Your task to perform on an android device: choose inbox layout in the gmail app Image 0: 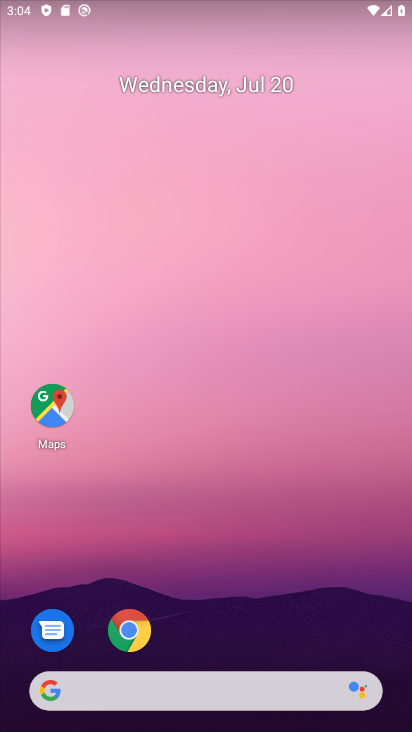
Step 0: drag from (262, 582) to (224, 69)
Your task to perform on an android device: choose inbox layout in the gmail app Image 1: 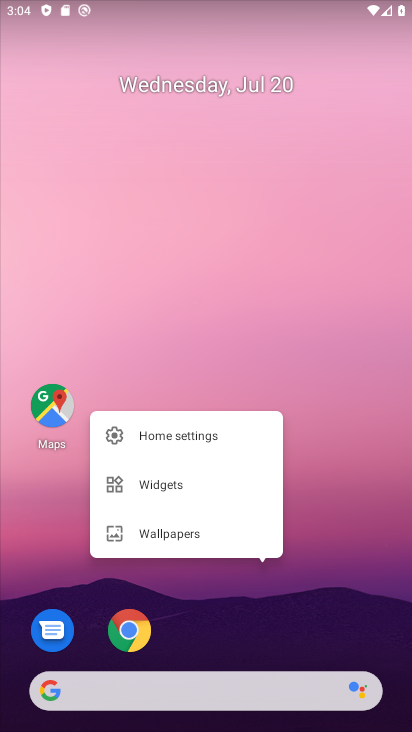
Step 1: click (357, 318)
Your task to perform on an android device: choose inbox layout in the gmail app Image 2: 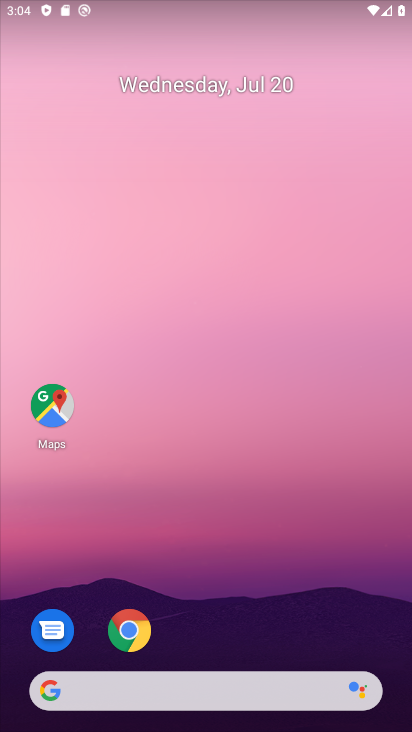
Step 2: drag from (340, 599) to (304, 24)
Your task to perform on an android device: choose inbox layout in the gmail app Image 3: 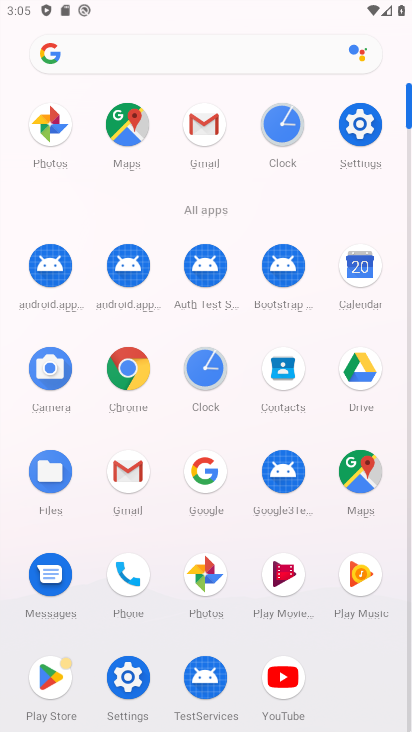
Step 3: click (126, 465)
Your task to perform on an android device: choose inbox layout in the gmail app Image 4: 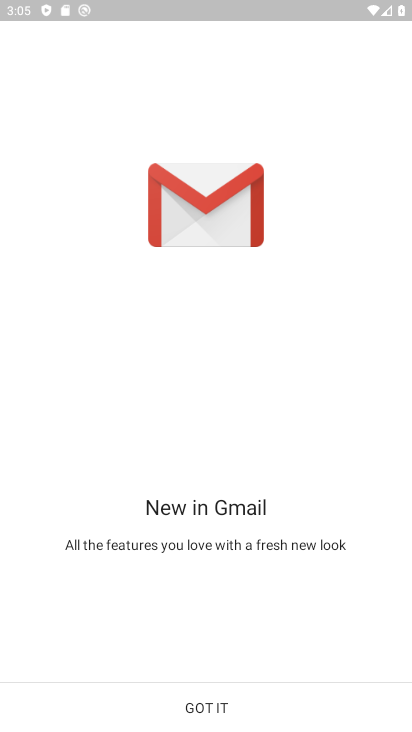
Step 4: click (241, 710)
Your task to perform on an android device: choose inbox layout in the gmail app Image 5: 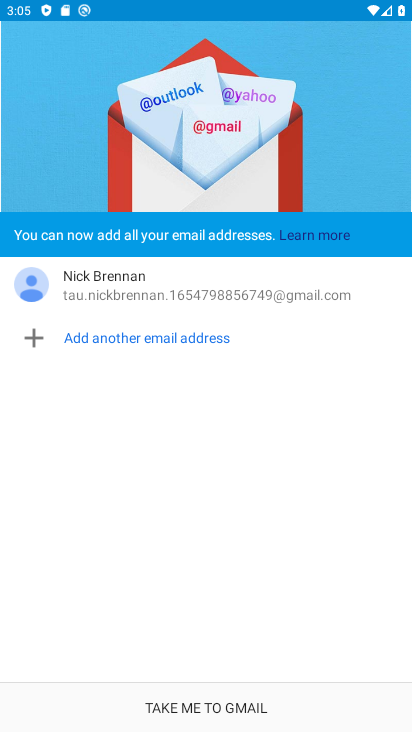
Step 5: click (241, 710)
Your task to perform on an android device: choose inbox layout in the gmail app Image 6: 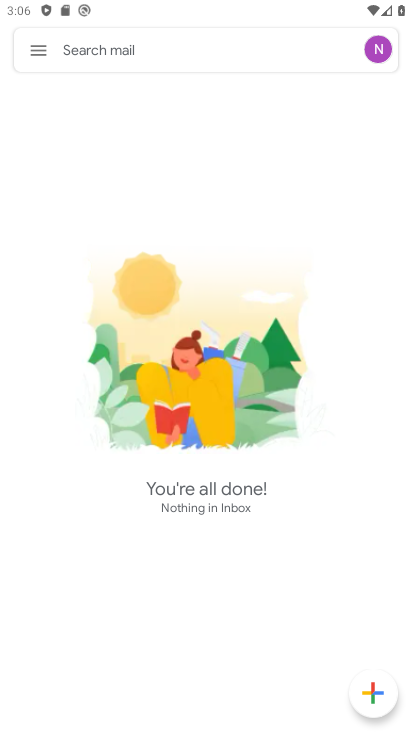
Step 6: click (27, 47)
Your task to perform on an android device: choose inbox layout in the gmail app Image 7: 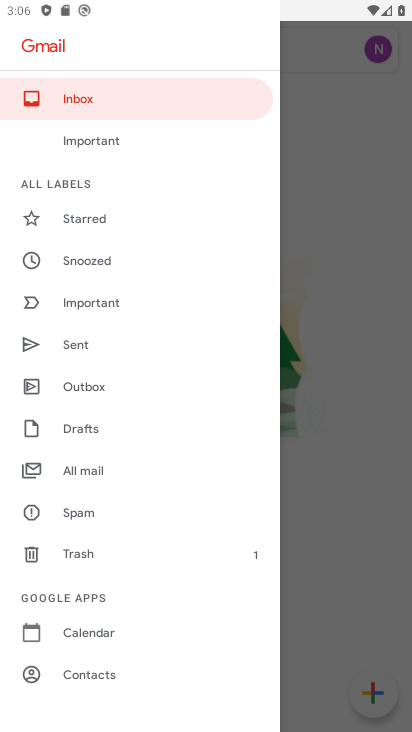
Step 7: drag from (123, 643) to (117, 410)
Your task to perform on an android device: choose inbox layout in the gmail app Image 8: 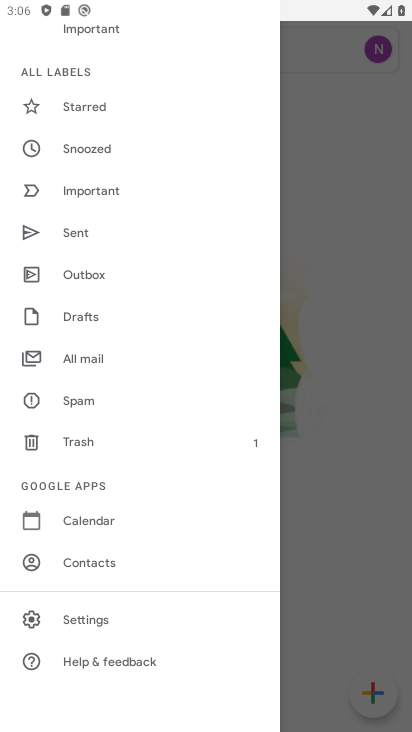
Step 8: click (51, 623)
Your task to perform on an android device: choose inbox layout in the gmail app Image 9: 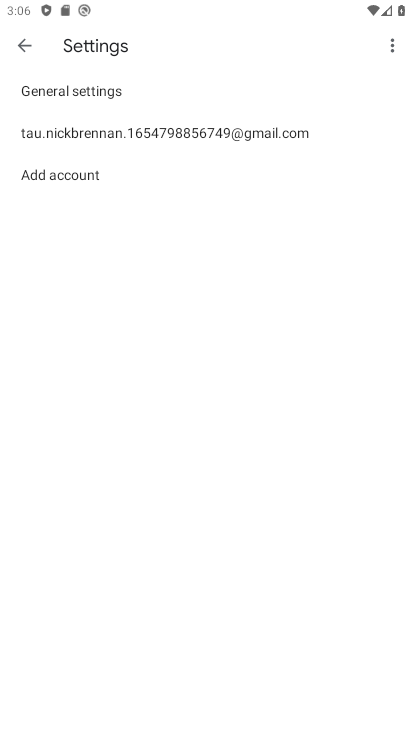
Step 9: click (119, 129)
Your task to perform on an android device: choose inbox layout in the gmail app Image 10: 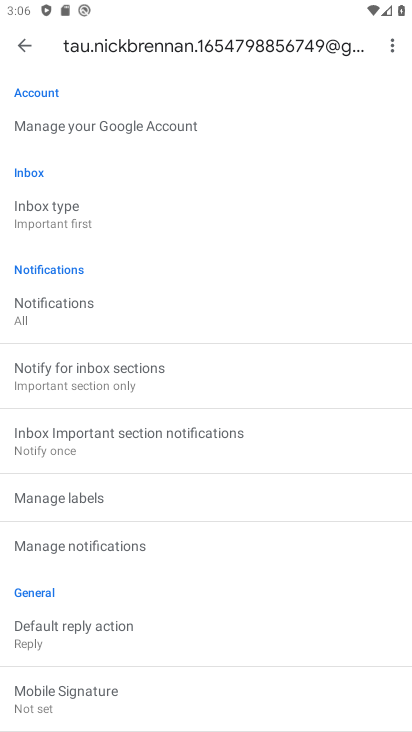
Step 10: click (120, 214)
Your task to perform on an android device: choose inbox layout in the gmail app Image 11: 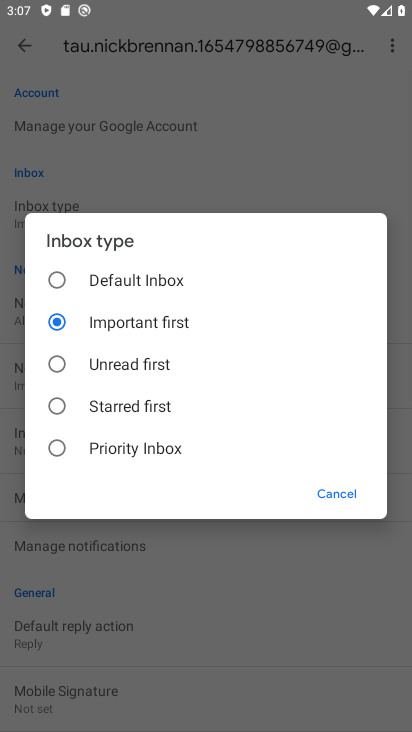
Step 11: click (130, 281)
Your task to perform on an android device: choose inbox layout in the gmail app Image 12: 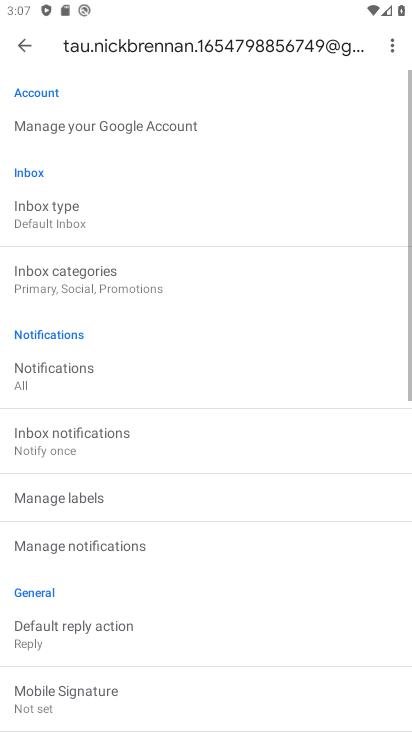
Step 12: task complete